Your task to perform on an android device: change the clock display to digital Image 0: 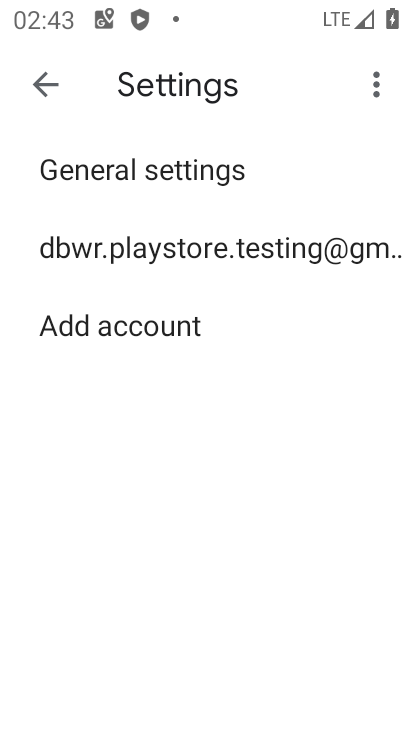
Step 0: press home button
Your task to perform on an android device: change the clock display to digital Image 1: 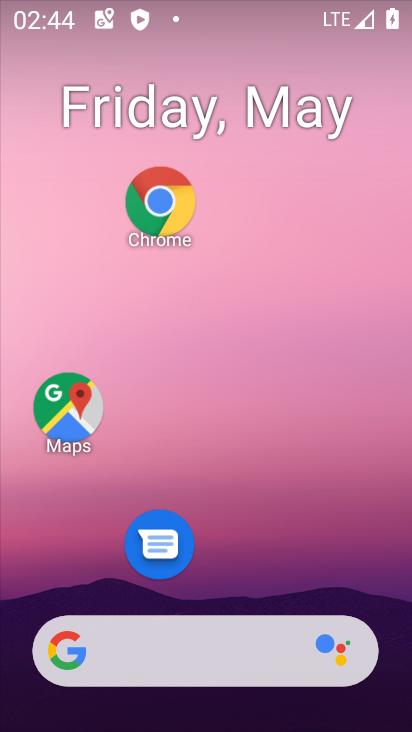
Step 1: drag from (265, 597) to (210, 248)
Your task to perform on an android device: change the clock display to digital Image 2: 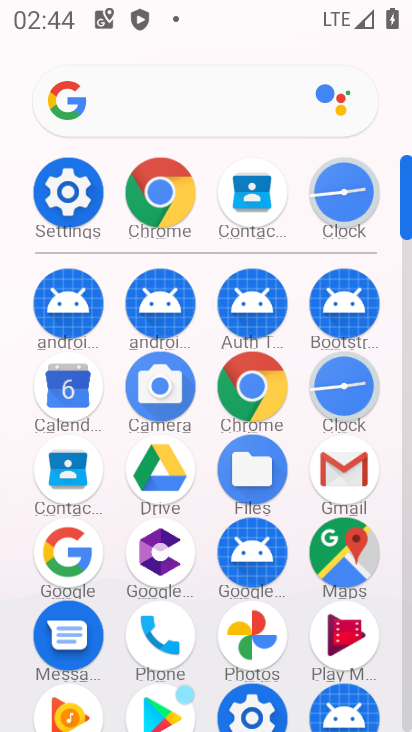
Step 2: click (371, 390)
Your task to perform on an android device: change the clock display to digital Image 3: 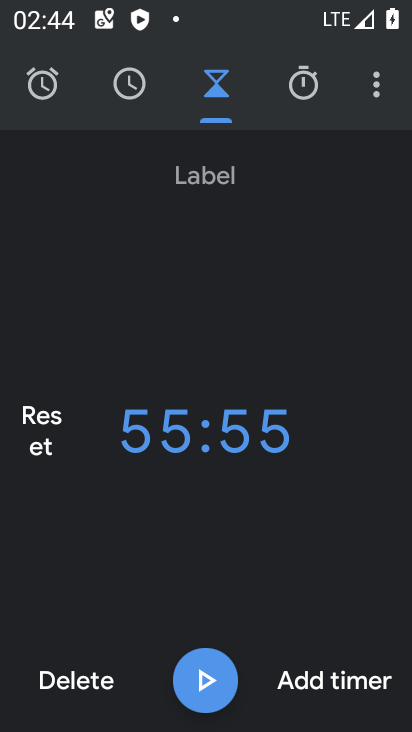
Step 3: click (389, 93)
Your task to perform on an android device: change the clock display to digital Image 4: 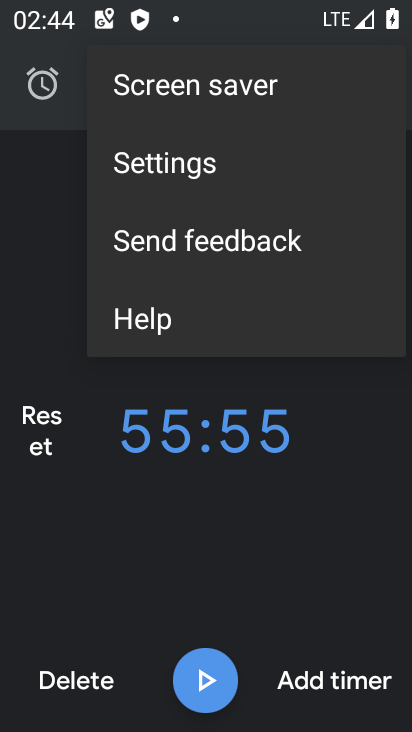
Step 4: click (197, 178)
Your task to perform on an android device: change the clock display to digital Image 5: 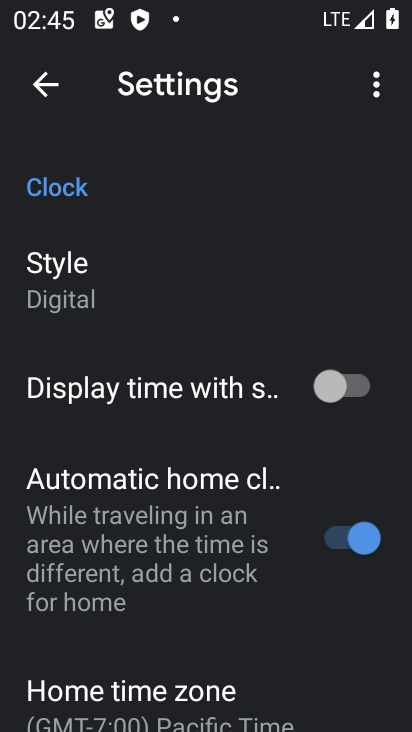
Step 5: task complete